Your task to perform on an android device: find photos in the google photos app Image 0: 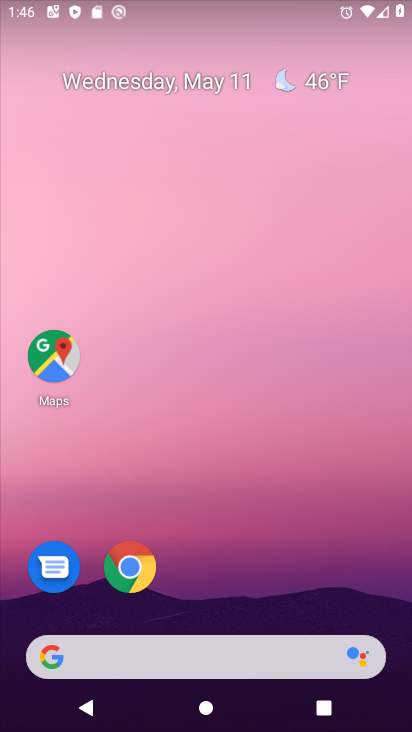
Step 0: drag from (233, 630) to (307, 88)
Your task to perform on an android device: find photos in the google photos app Image 1: 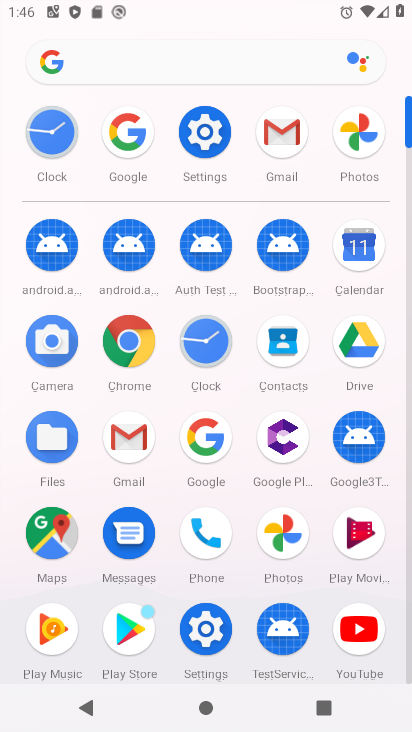
Step 1: click (281, 525)
Your task to perform on an android device: find photos in the google photos app Image 2: 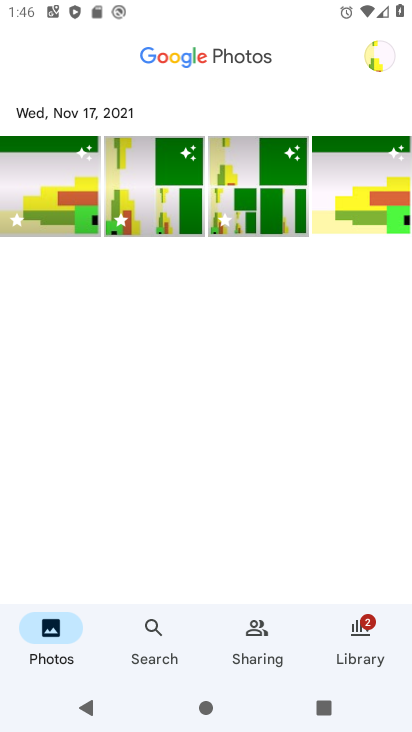
Step 2: task complete